Your task to perform on an android device: turn off airplane mode Image 0: 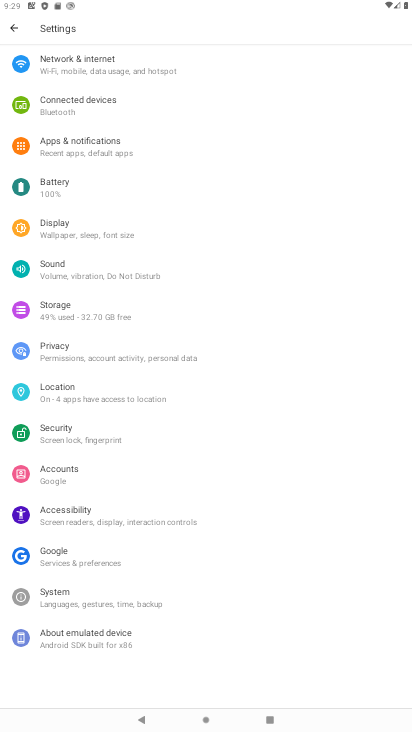
Step 0: click (136, 66)
Your task to perform on an android device: turn off airplane mode Image 1: 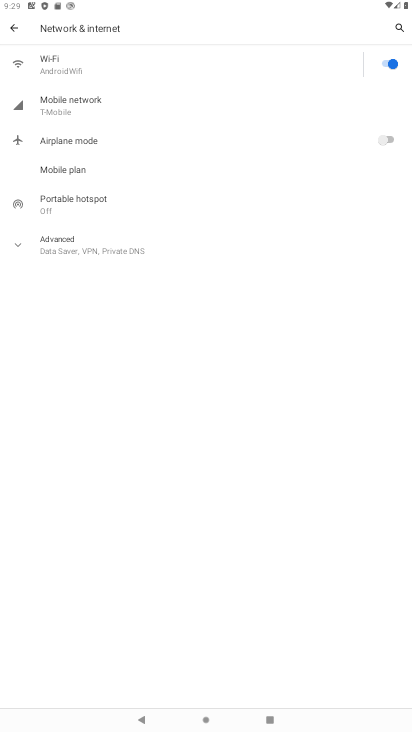
Step 1: task complete